Your task to perform on an android device: visit the assistant section in the google photos Image 0: 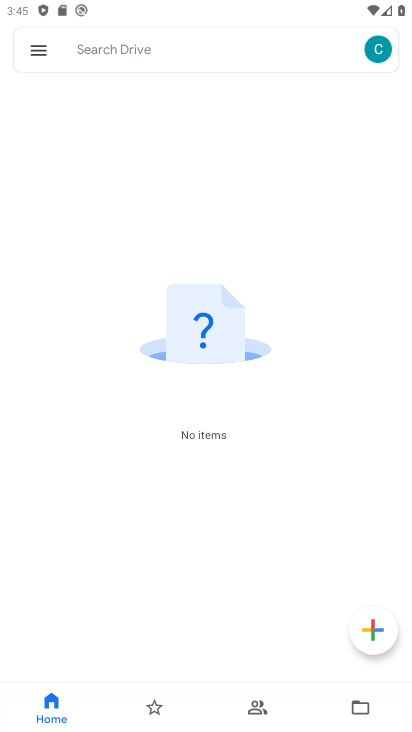
Step 0: press home button
Your task to perform on an android device: visit the assistant section in the google photos Image 1: 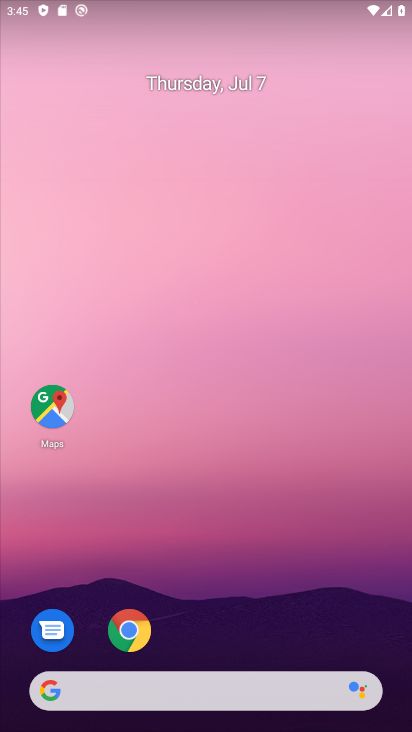
Step 1: drag from (219, 553) to (292, 189)
Your task to perform on an android device: visit the assistant section in the google photos Image 2: 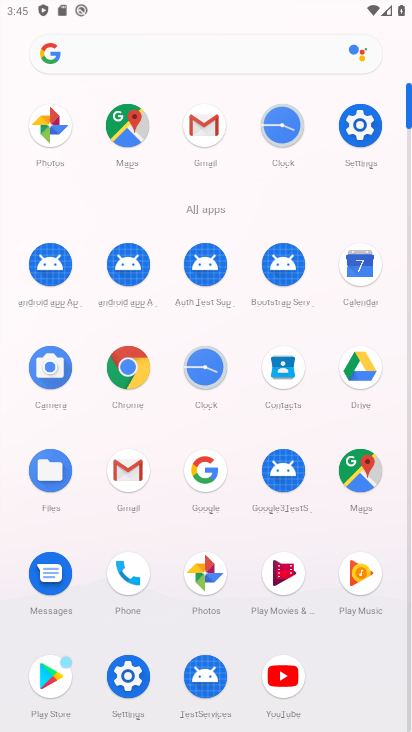
Step 2: click (207, 573)
Your task to perform on an android device: visit the assistant section in the google photos Image 3: 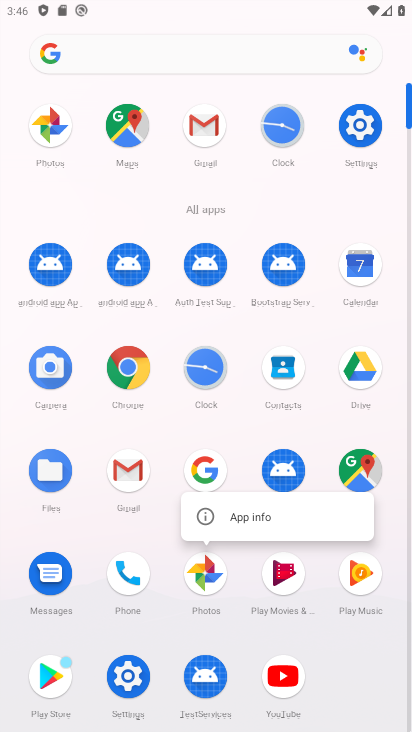
Step 3: click (206, 569)
Your task to perform on an android device: visit the assistant section in the google photos Image 4: 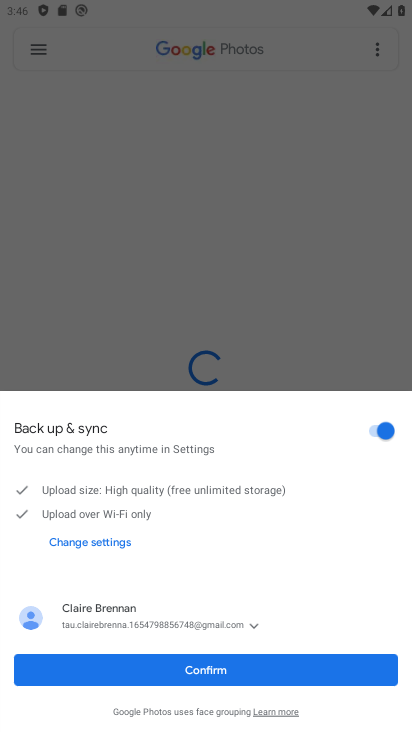
Step 4: click (215, 678)
Your task to perform on an android device: visit the assistant section in the google photos Image 5: 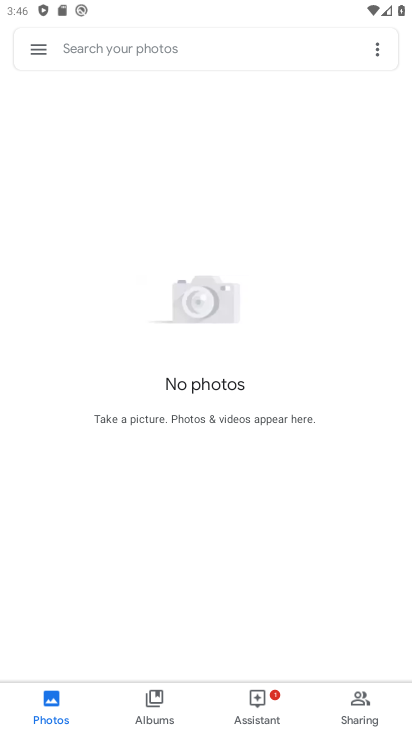
Step 5: click (257, 696)
Your task to perform on an android device: visit the assistant section in the google photos Image 6: 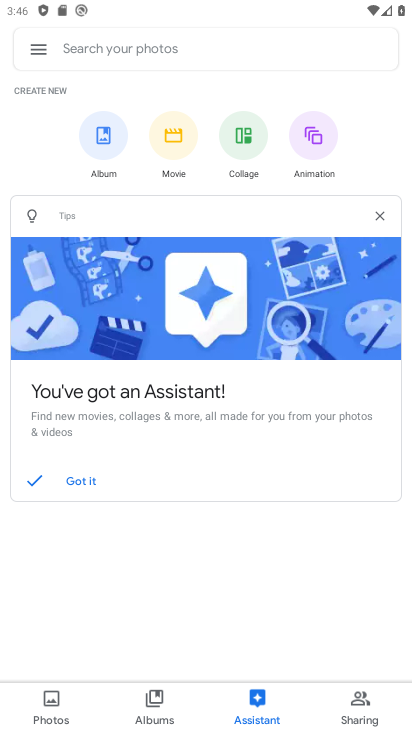
Step 6: task complete